Your task to perform on an android device: empty trash in google photos Image 0: 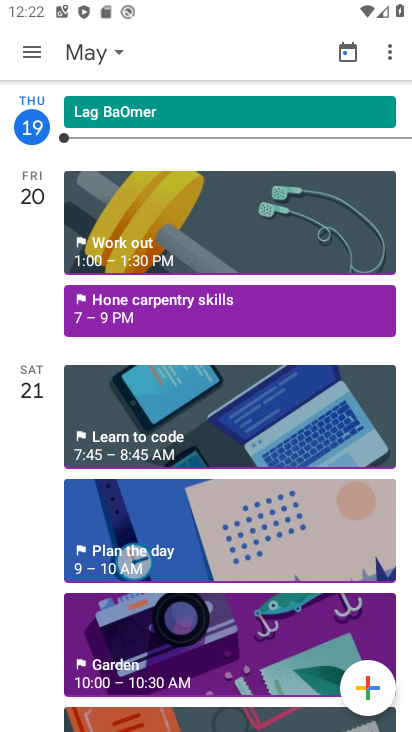
Step 0: press home button
Your task to perform on an android device: empty trash in google photos Image 1: 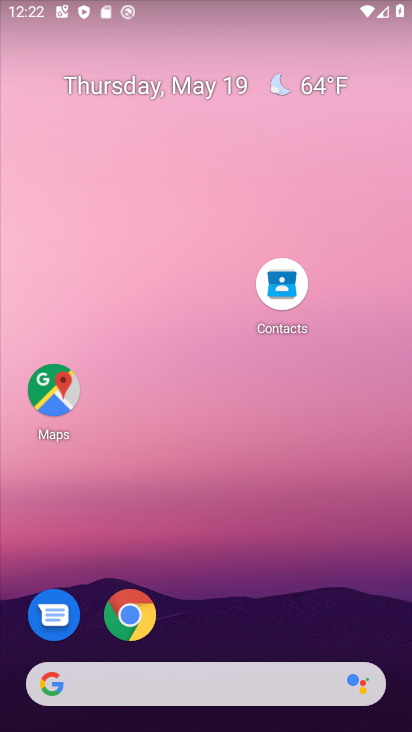
Step 1: drag from (284, 657) to (362, 335)
Your task to perform on an android device: empty trash in google photos Image 2: 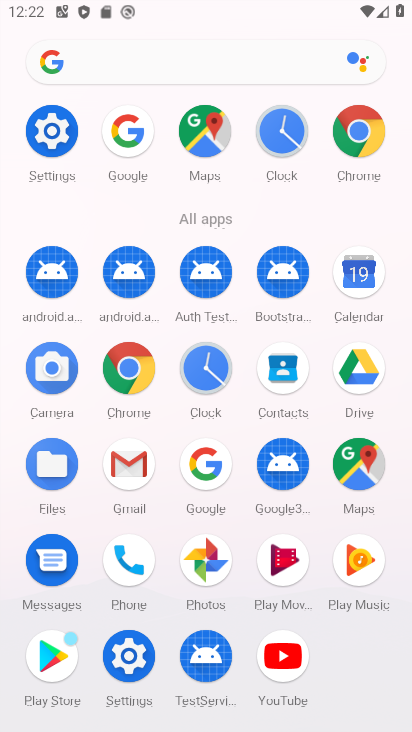
Step 2: click (250, 537)
Your task to perform on an android device: empty trash in google photos Image 3: 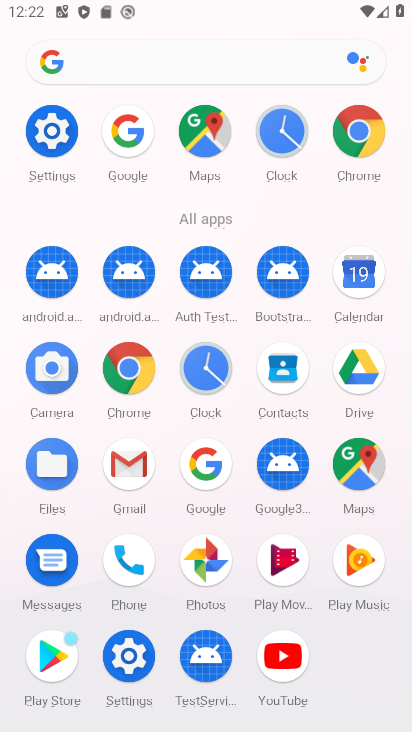
Step 3: click (190, 586)
Your task to perform on an android device: empty trash in google photos Image 4: 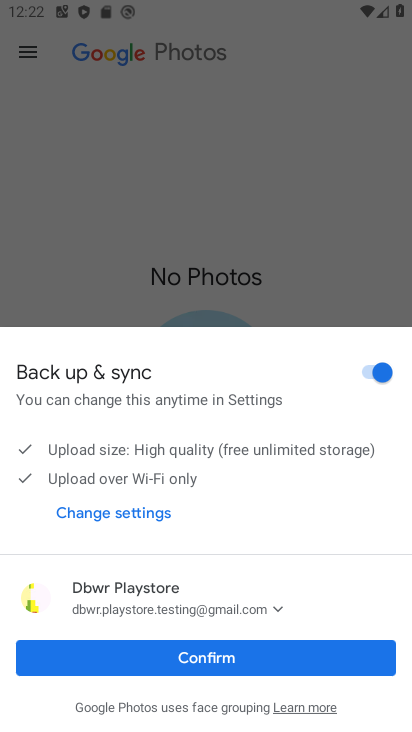
Step 4: click (179, 657)
Your task to perform on an android device: empty trash in google photos Image 5: 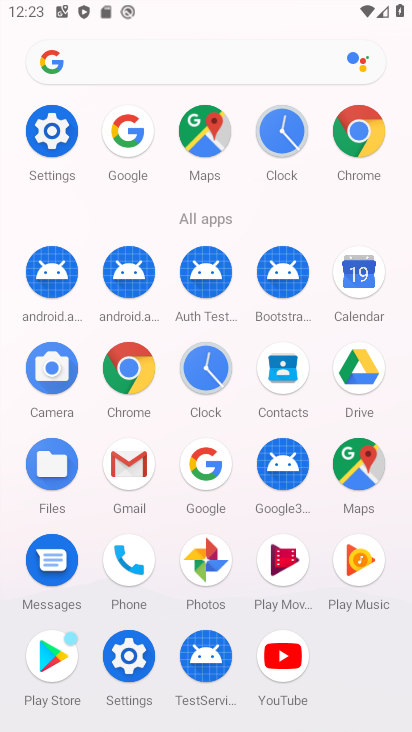
Step 5: click (219, 571)
Your task to perform on an android device: empty trash in google photos Image 6: 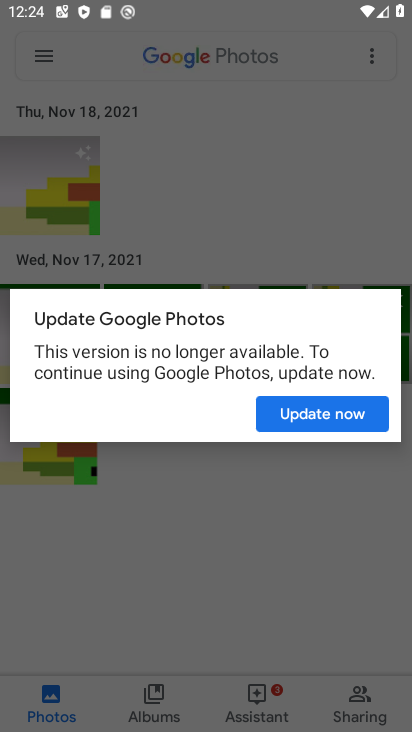
Step 6: task complete